Your task to perform on an android device: Turn off the flashlight Image 0: 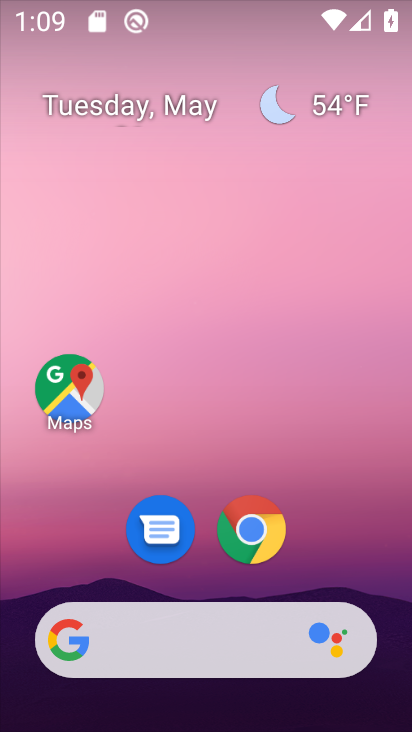
Step 0: drag from (326, 558) to (272, 257)
Your task to perform on an android device: Turn off the flashlight Image 1: 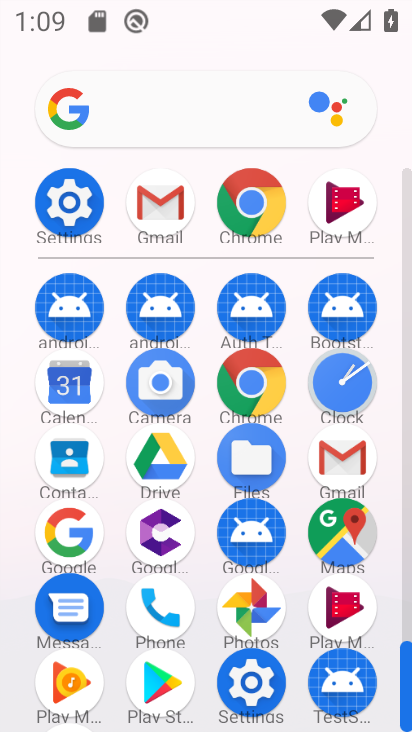
Step 1: click (36, 192)
Your task to perform on an android device: Turn off the flashlight Image 2: 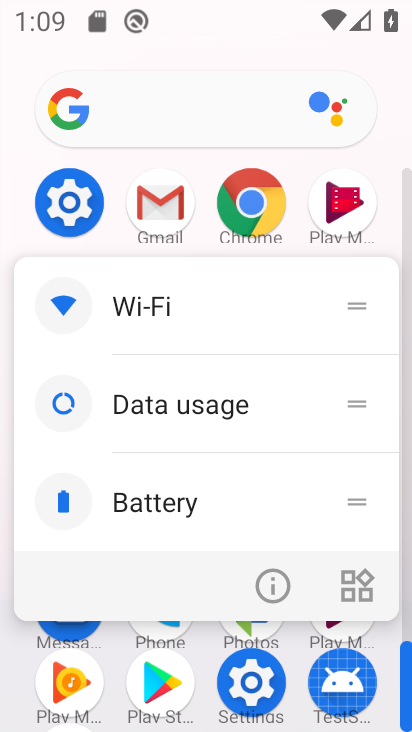
Step 2: click (60, 196)
Your task to perform on an android device: Turn off the flashlight Image 3: 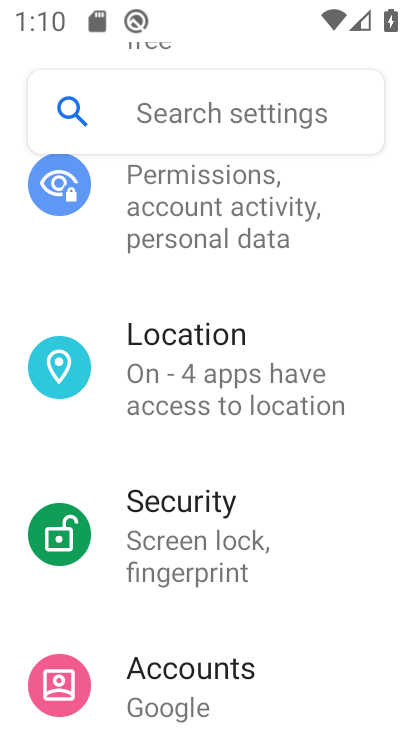
Step 3: task complete